Your task to perform on an android device: Open Maps and search for coffee Image 0: 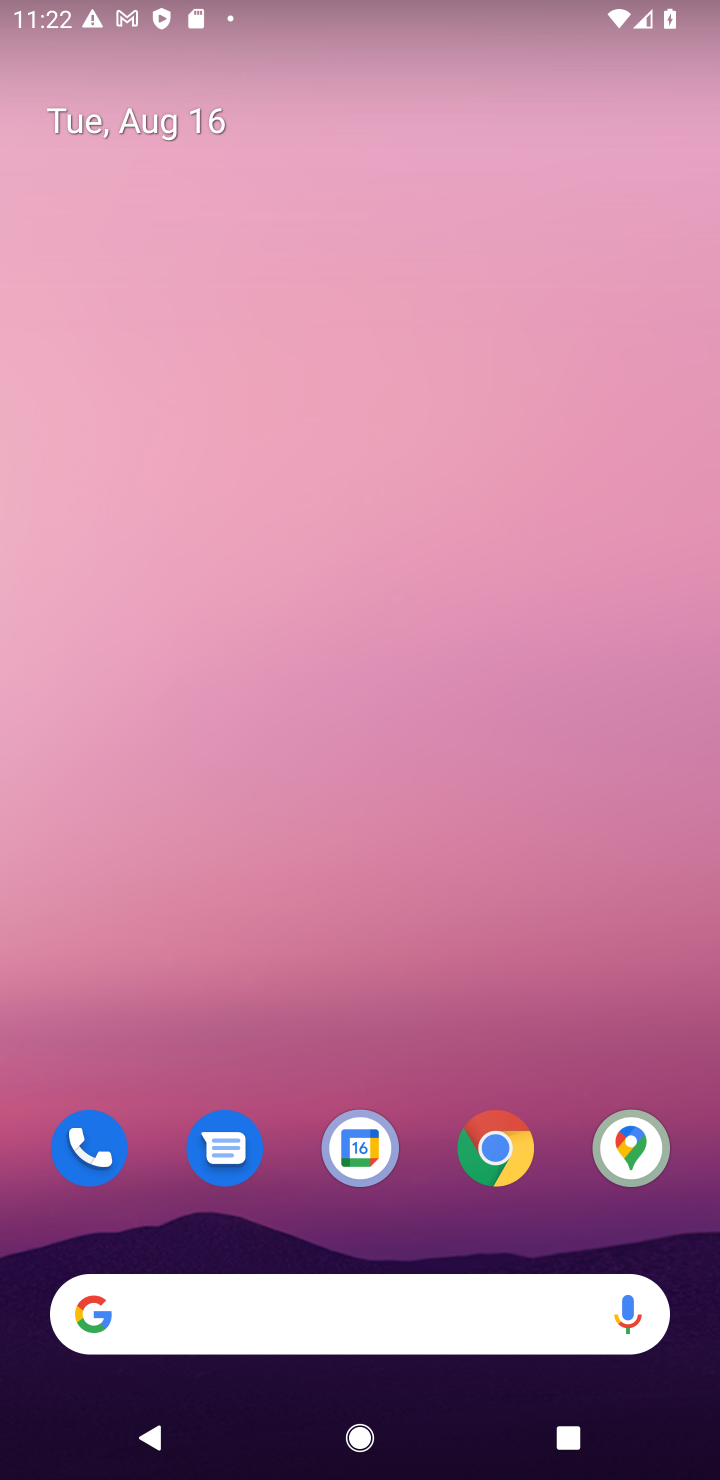
Step 0: press home button
Your task to perform on an android device: Open Maps and search for coffee Image 1: 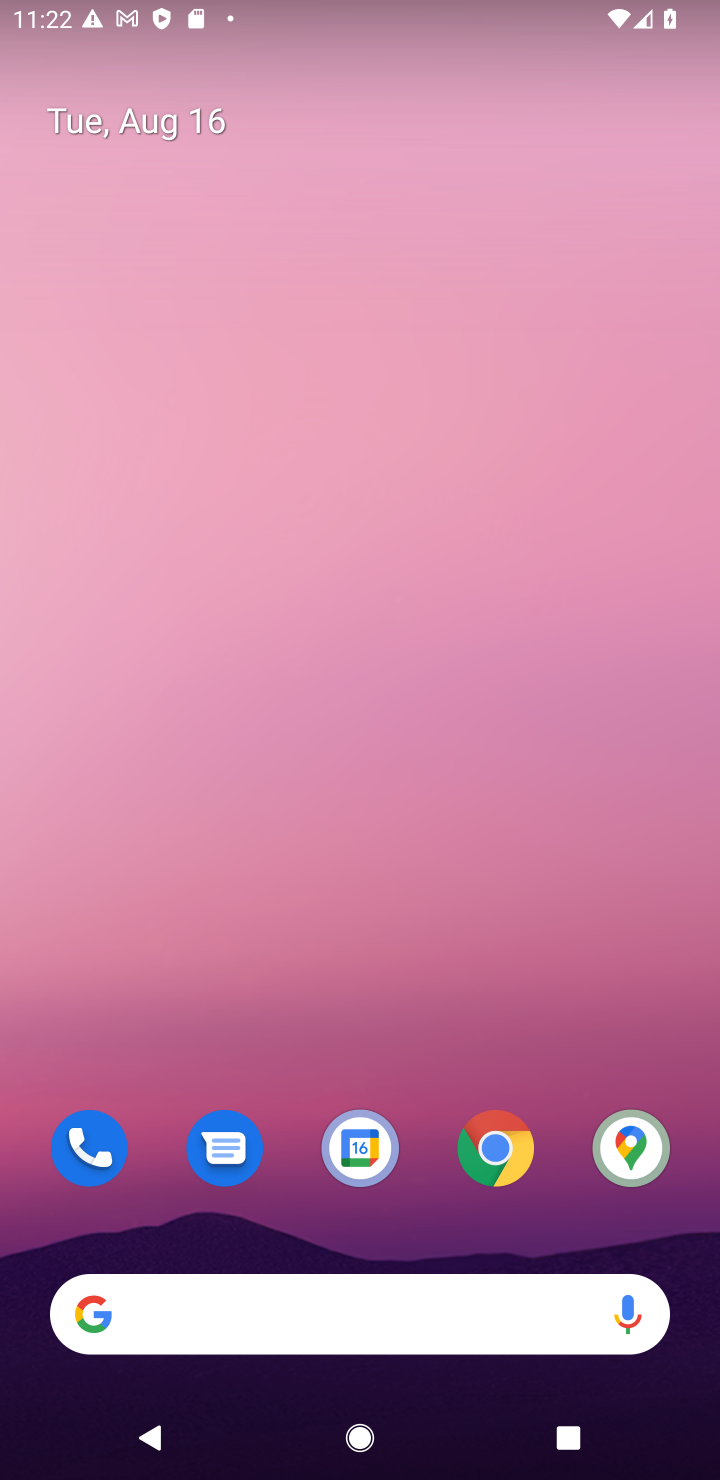
Step 1: press home button
Your task to perform on an android device: Open Maps and search for coffee Image 2: 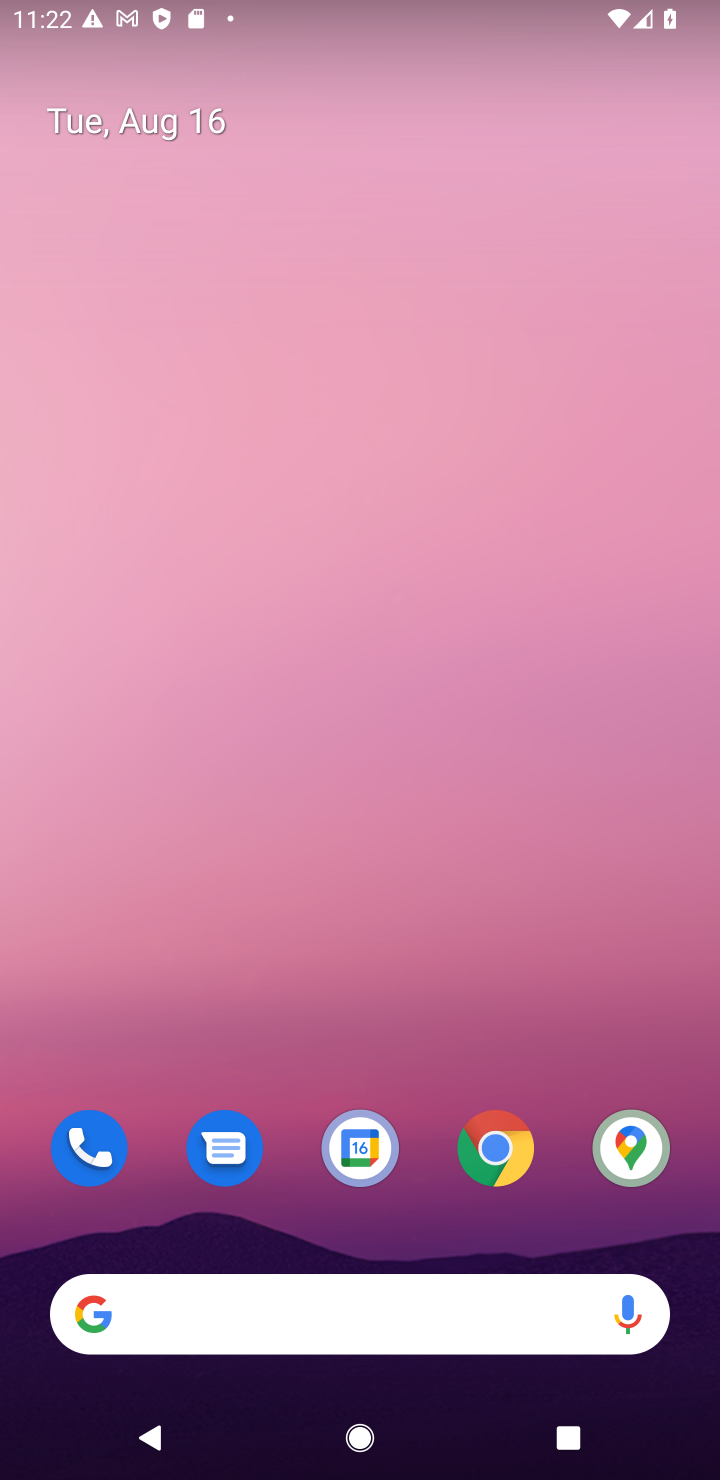
Step 2: press home button
Your task to perform on an android device: Open Maps and search for coffee Image 3: 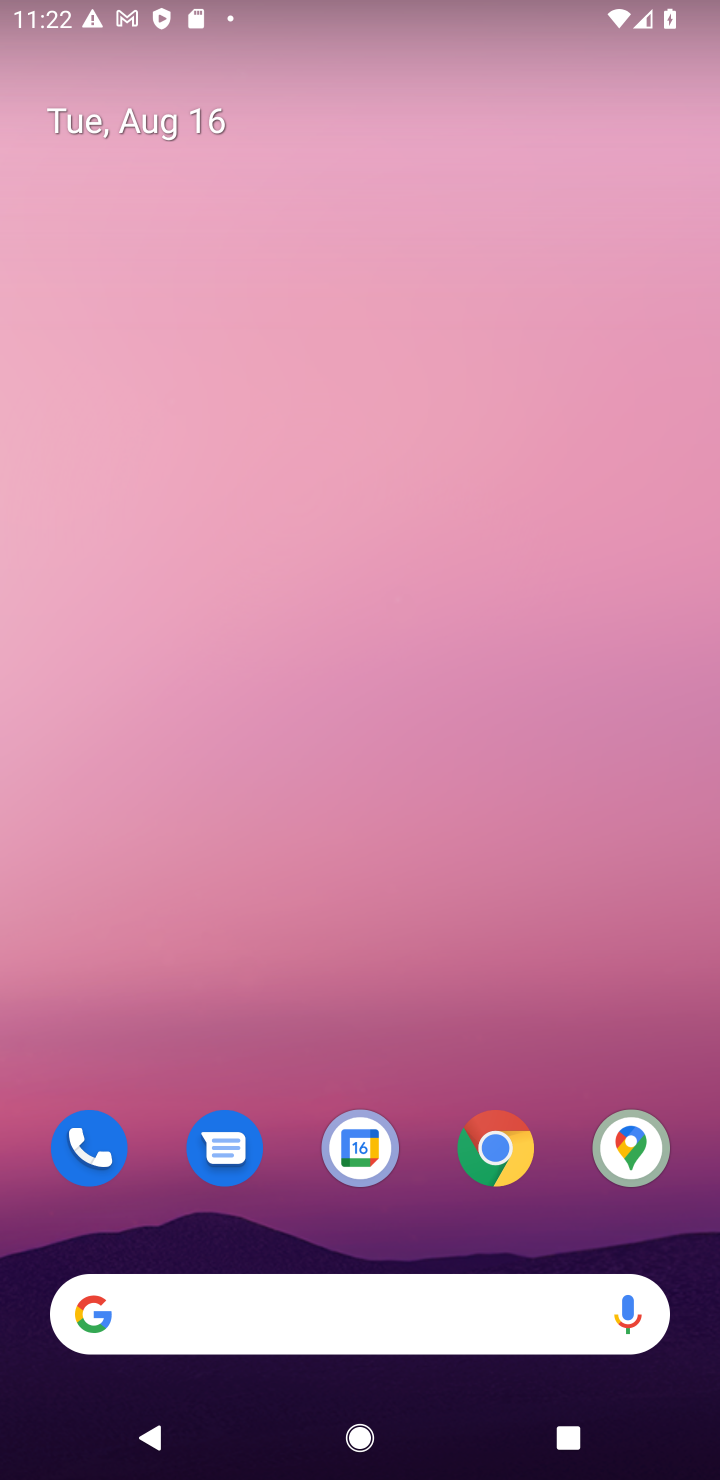
Step 3: press home button
Your task to perform on an android device: Open Maps and search for coffee Image 4: 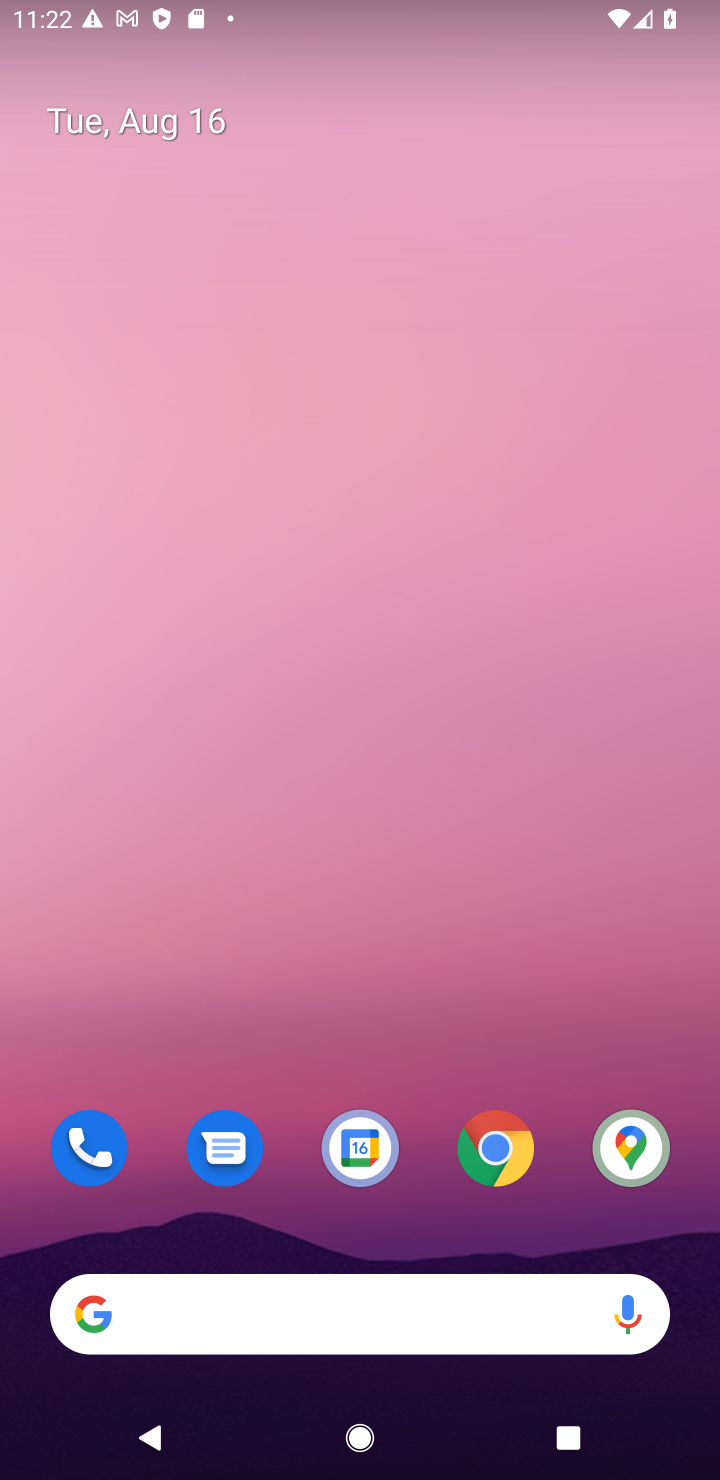
Step 4: press home button
Your task to perform on an android device: Open Maps and search for coffee Image 5: 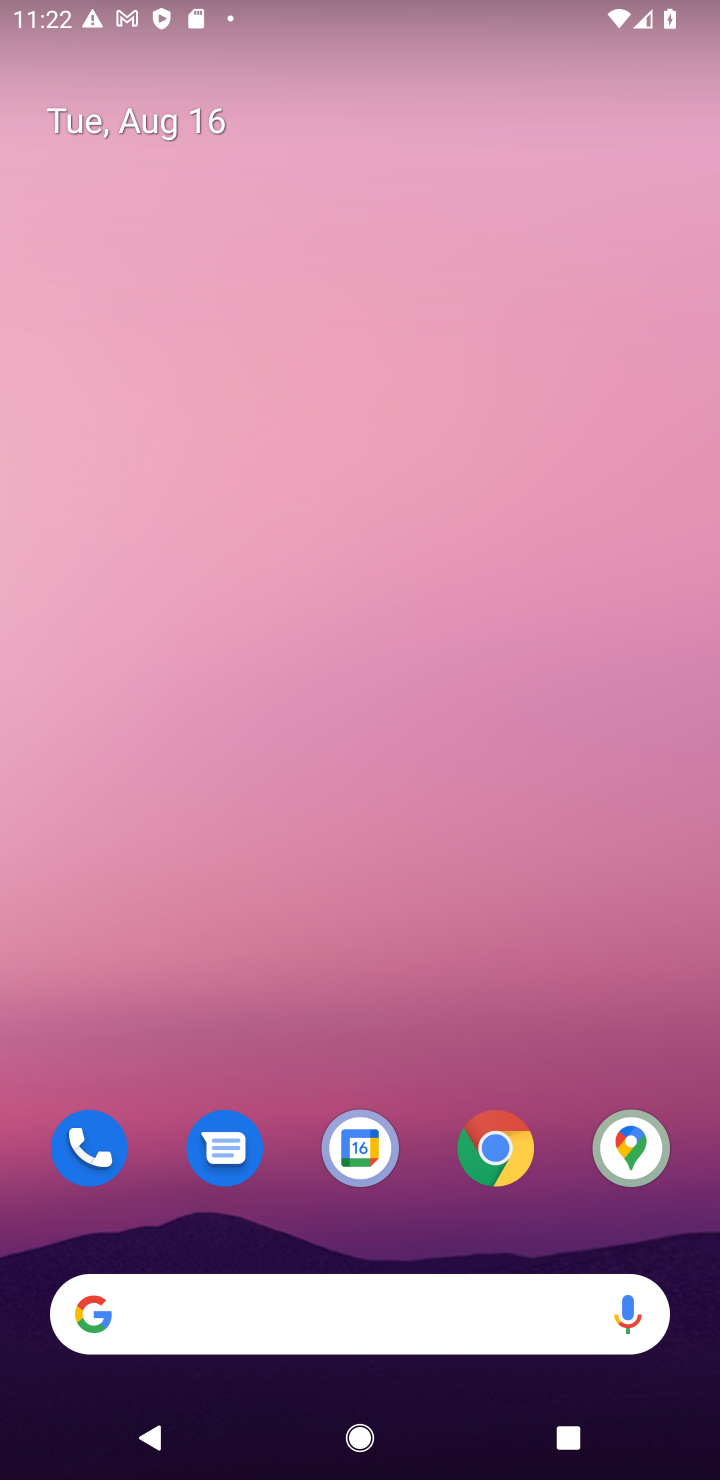
Step 5: press home button
Your task to perform on an android device: Open Maps and search for coffee Image 6: 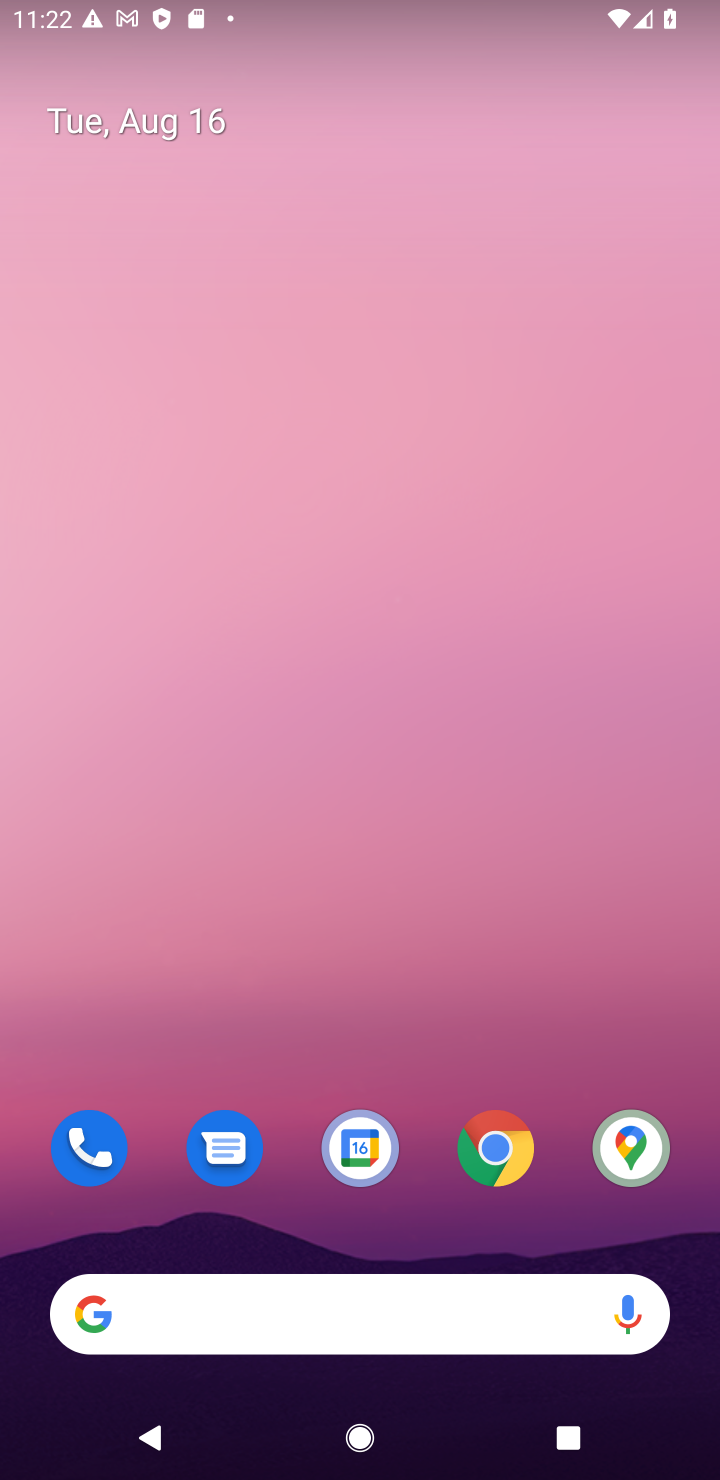
Step 6: press home button
Your task to perform on an android device: Open Maps and search for coffee Image 7: 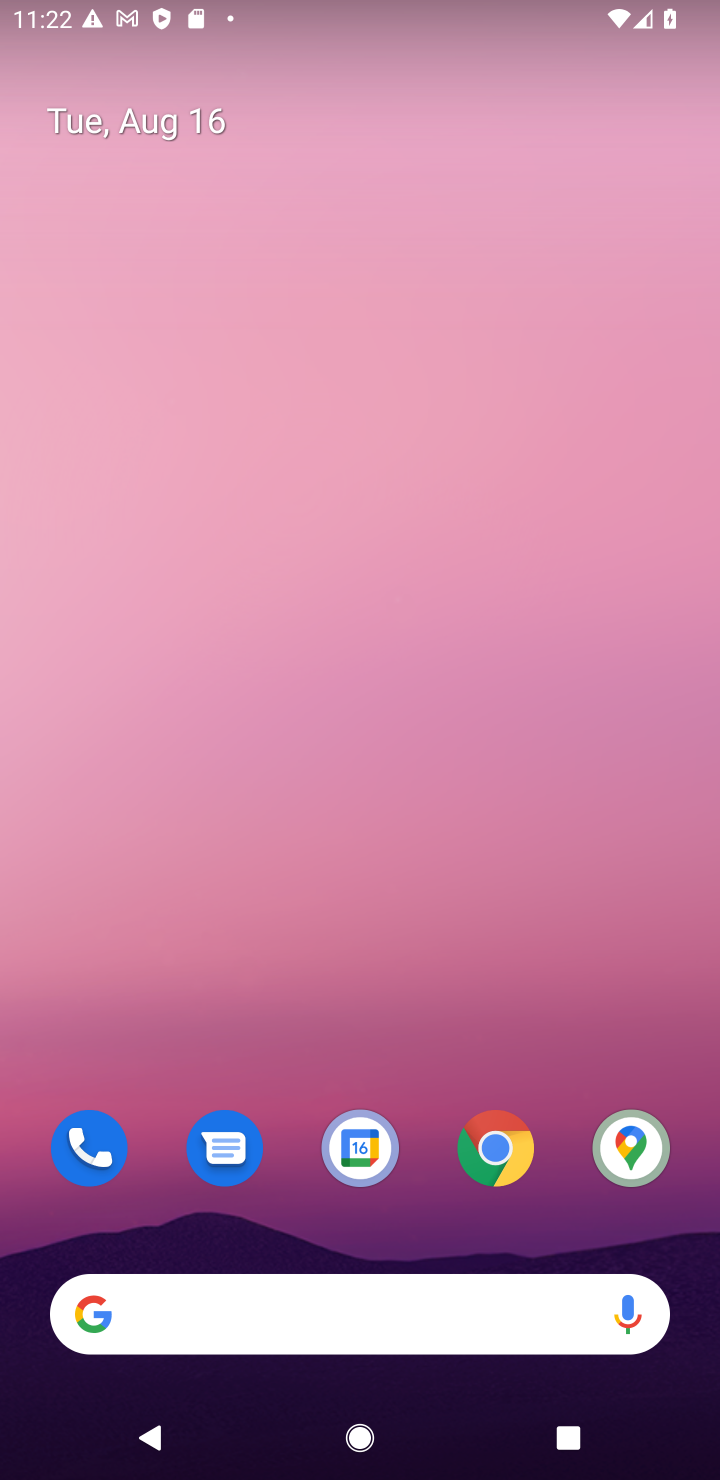
Step 7: click (657, 1172)
Your task to perform on an android device: Open Maps and search for coffee Image 8: 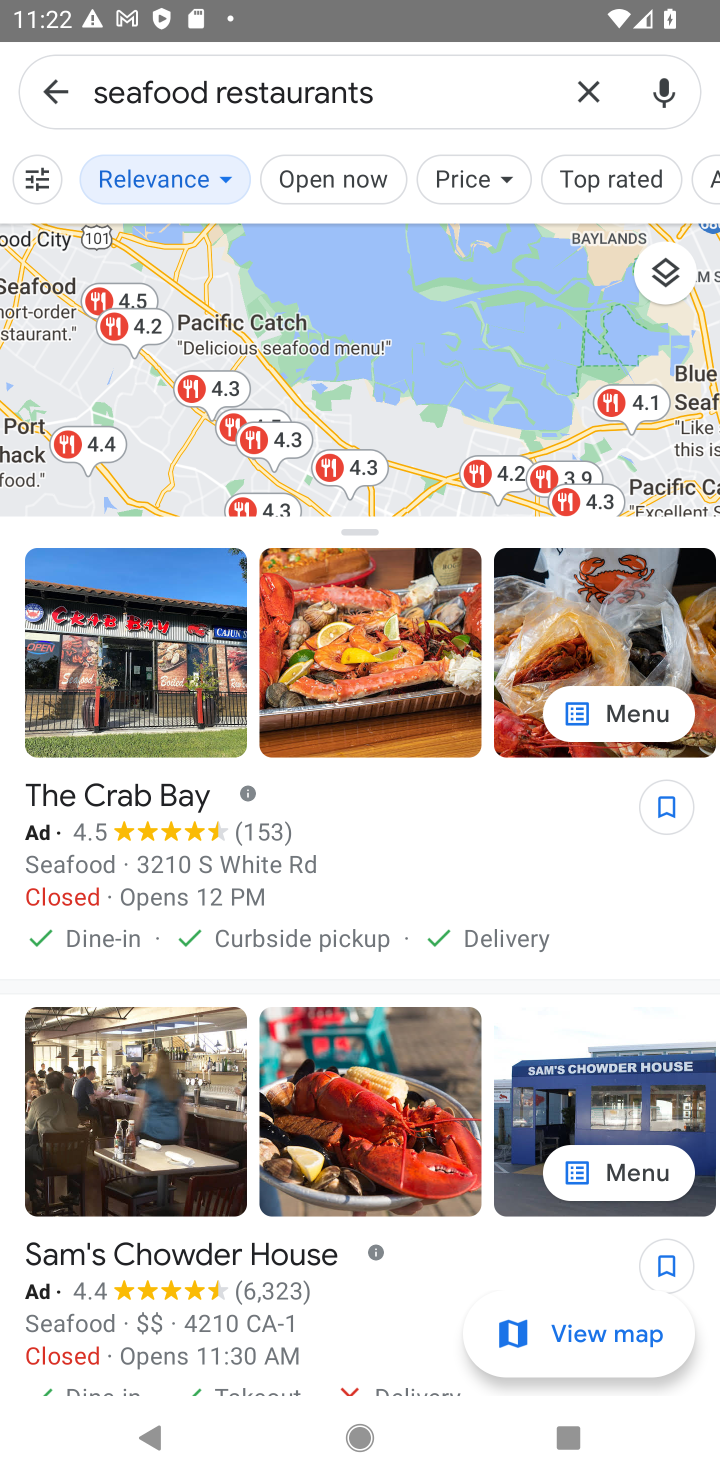
Step 8: click (582, 86)
Your task to perform on an android device: Open Maps and search for coffee Image 9: 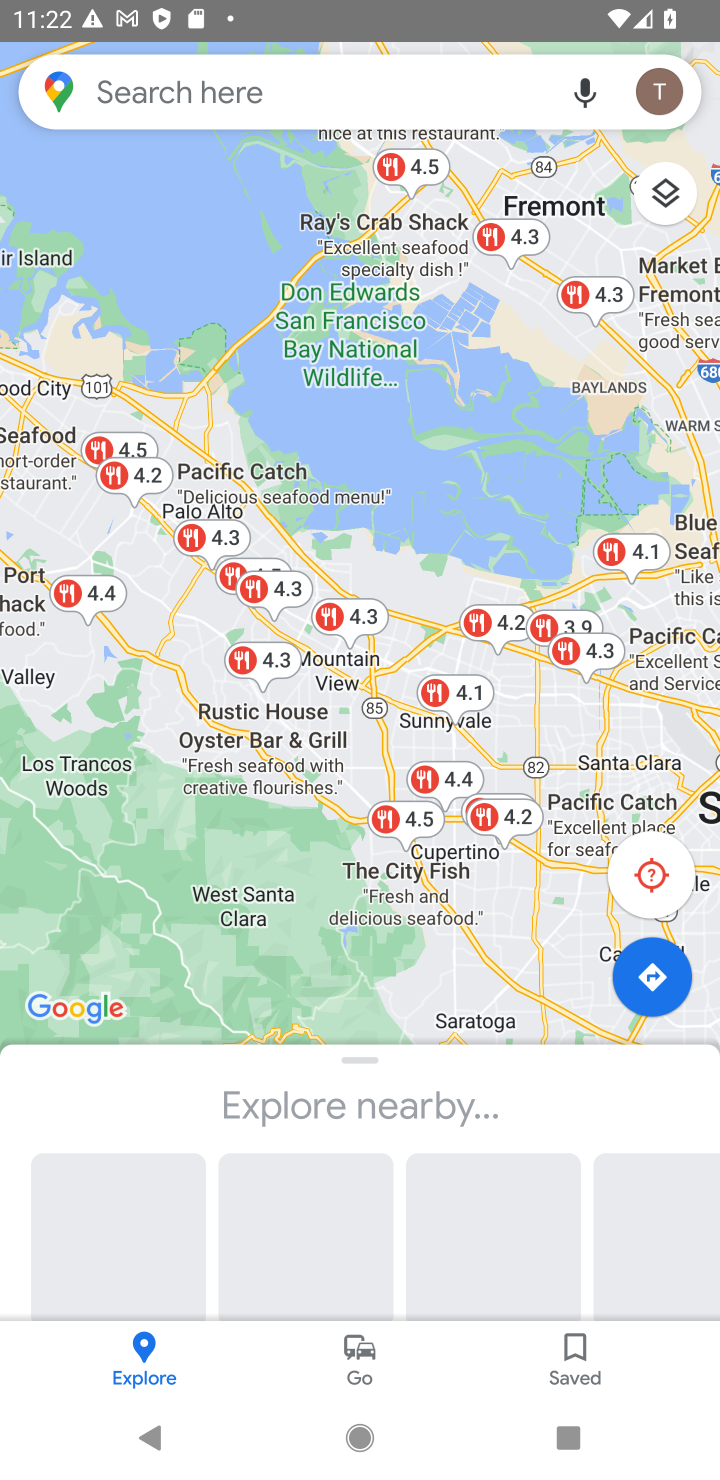
Step 9: click (447, 81)
Your task to perform on an android device: Open Maps and search for coffee Image 10: 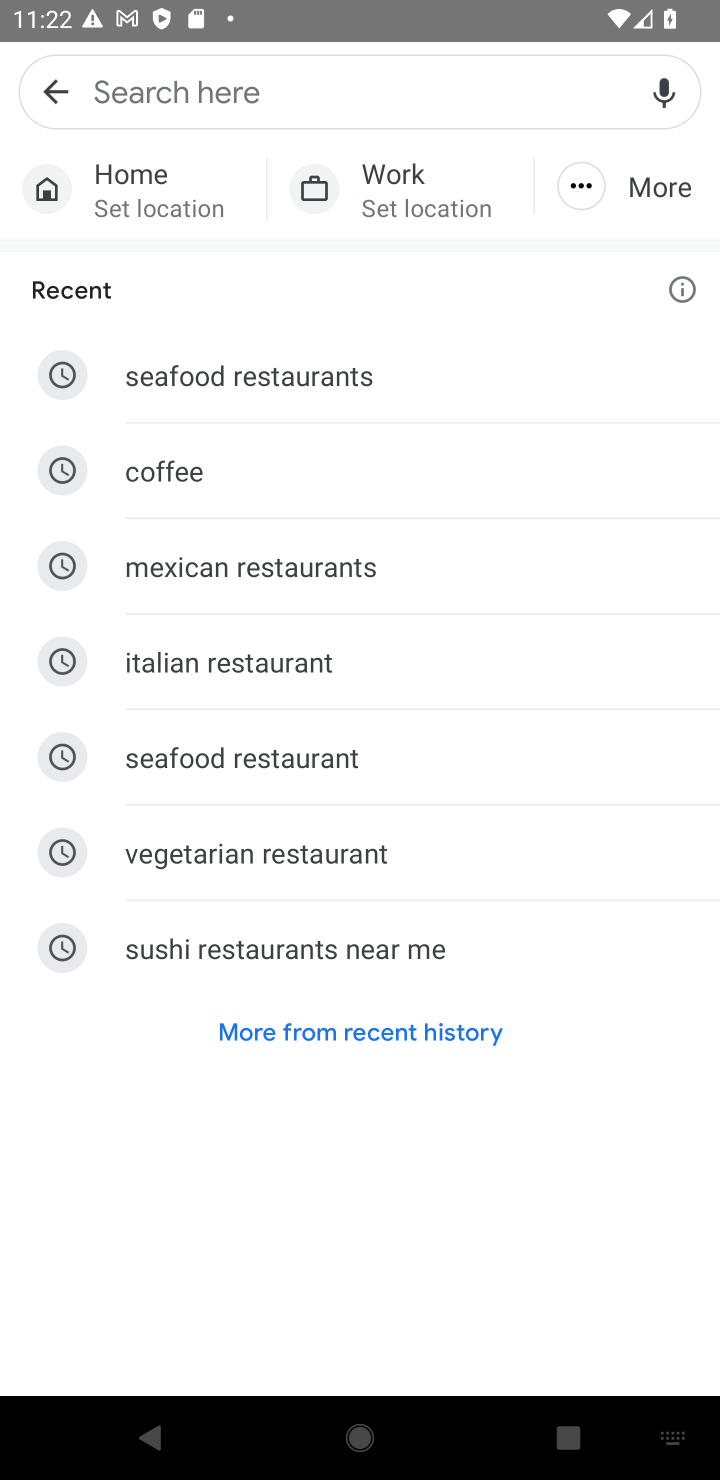
Step 10: type "coffee"
Your task to perform on an android device: Open Maps and search for coffee Image 11: 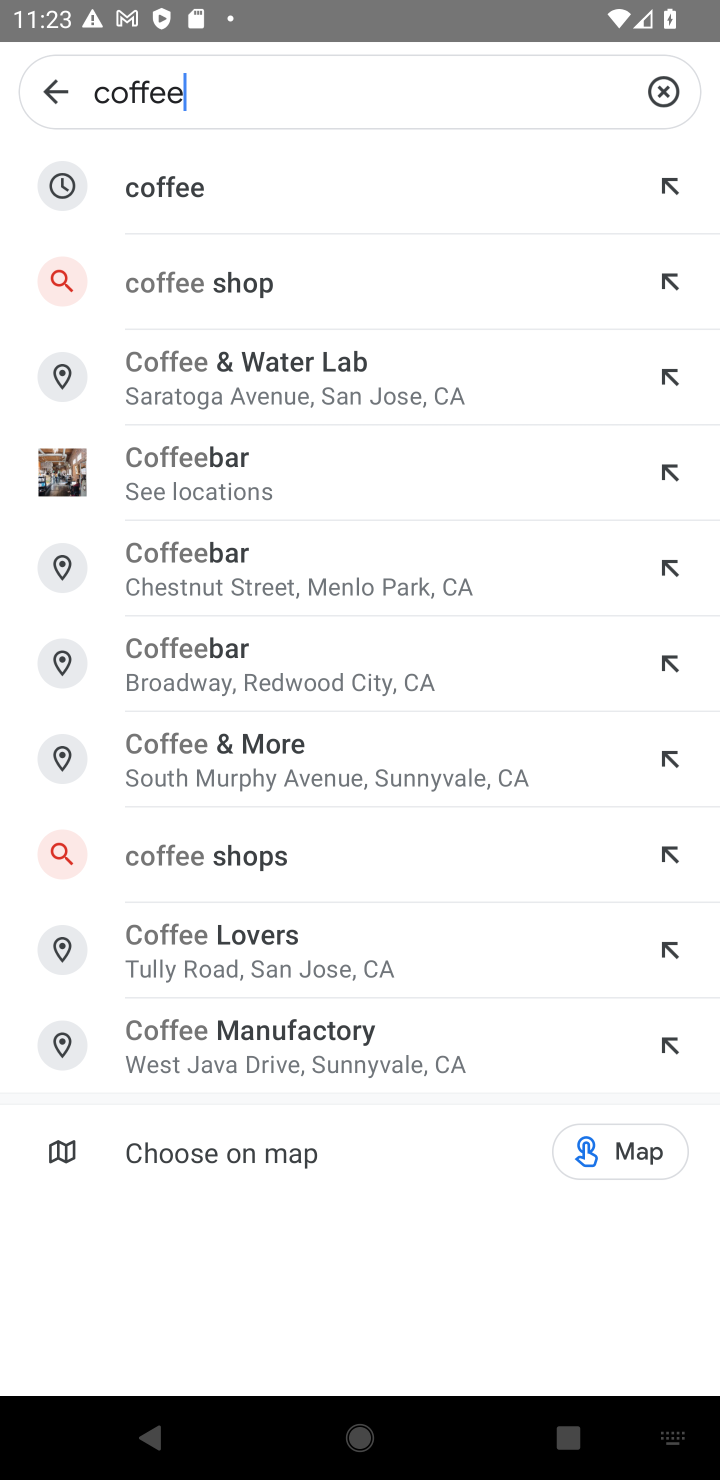
Step 11: click (253, 170)
Your task to perform on an android device: Open Maps and search for coffee Image 12: 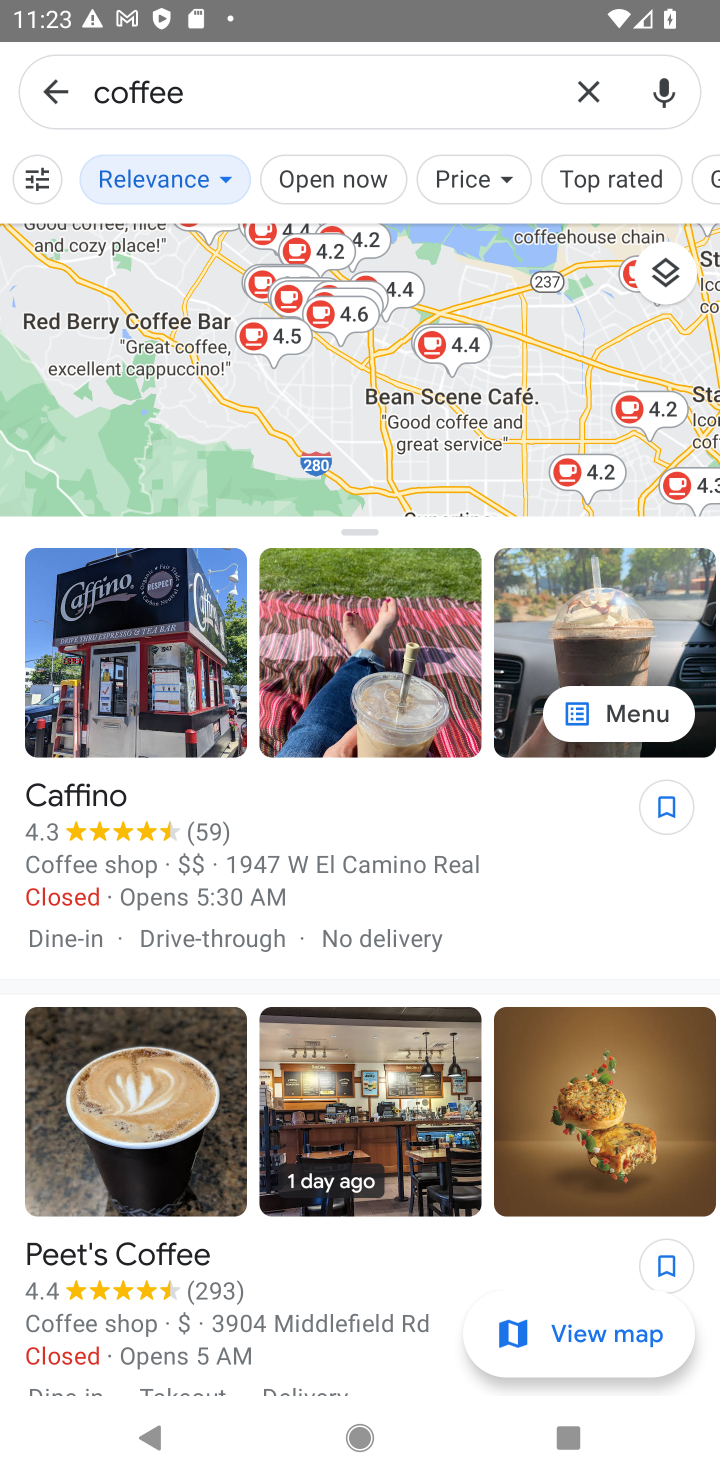
Step 12: task complete